Your task to perform on an android device: Open settings on Google Maps Image 0: 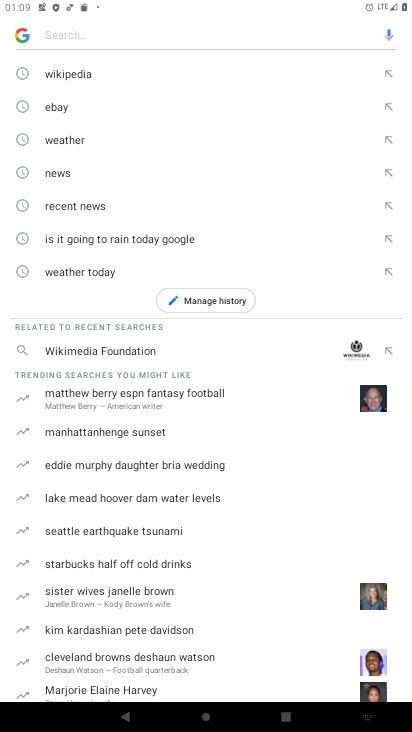
Step 0: press home button
Your task to perform on an android device: Open settings on Google Maps Image 1: 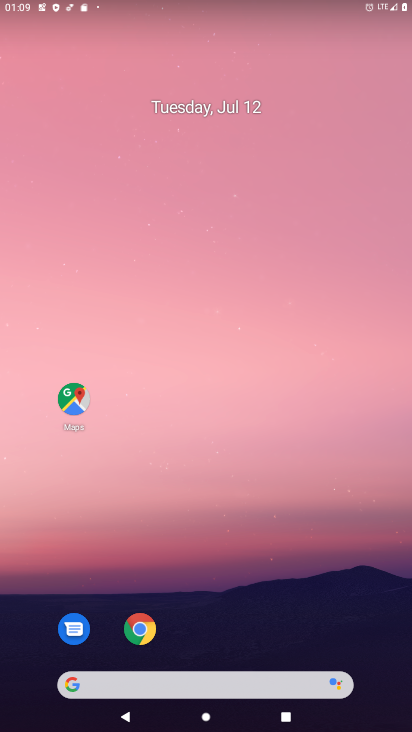
Step 1: click (76, 397)
Your task to perform on an android device: Open settings on Google Maps Image 2: 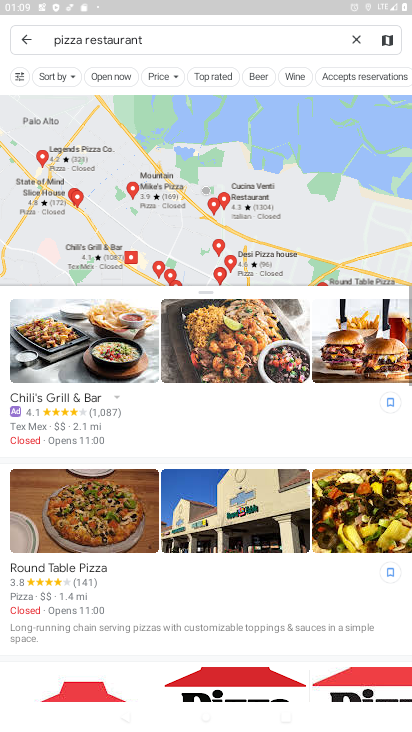
Step 2: click (27, 42)
Your task to perform on an android device: Open settings on Google Maps Image 3: 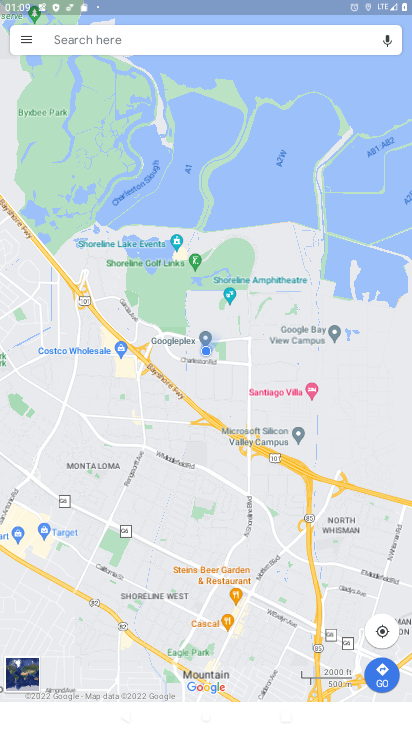
Step 3: click (24, 42)
Your task to perform on an android device: Open settings on Google Maps Image 4: 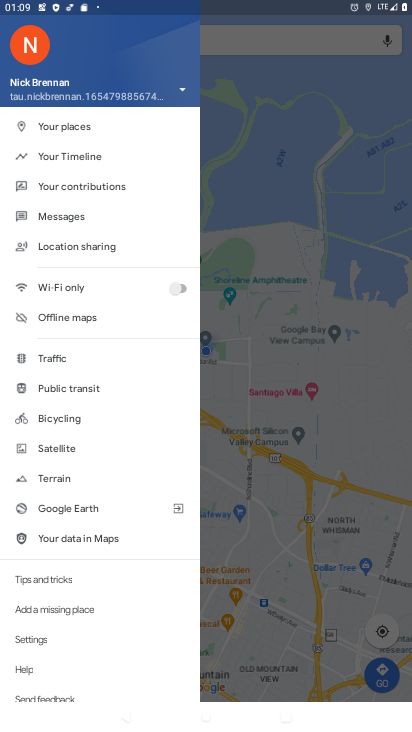
Step 4: click (25, 631)
Your task to perform on an android device: Open settings on Google Maps Image 5: 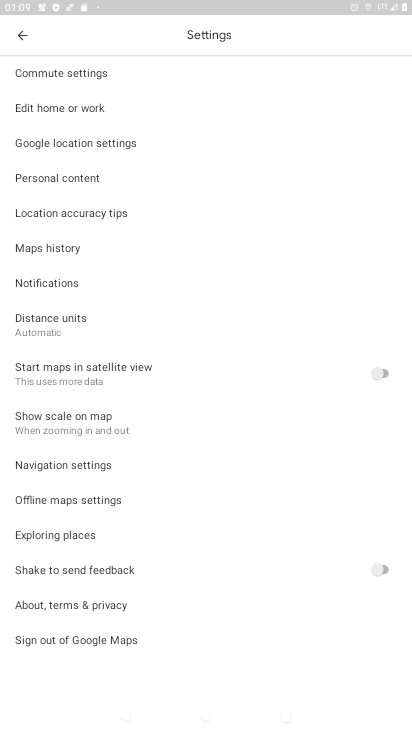
Step 5: task complete